Your task to perform on an android device: Open the phone app and click the voicemail tab. Image 0: 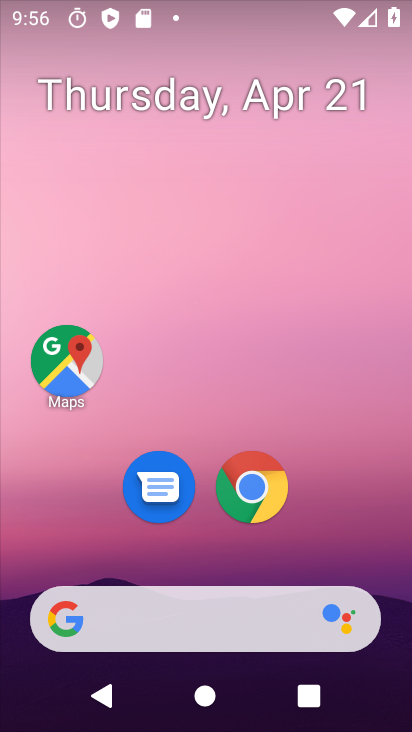
Step 0: drag from (386, 573) to (344, 191)
Your task to perform on an android device: Open the phone app and click the voicemail tab. Image 1: 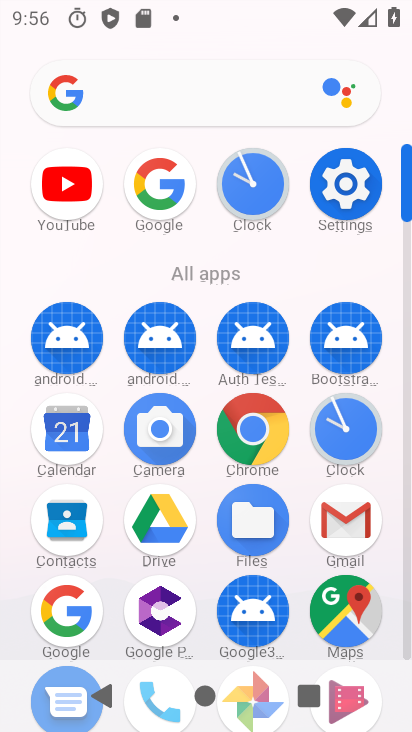
Step 1: drag from (399, 126) to (397, 51)
Your task to perform on an android device: Open the phone app and click the voicemail tab. Image 2: 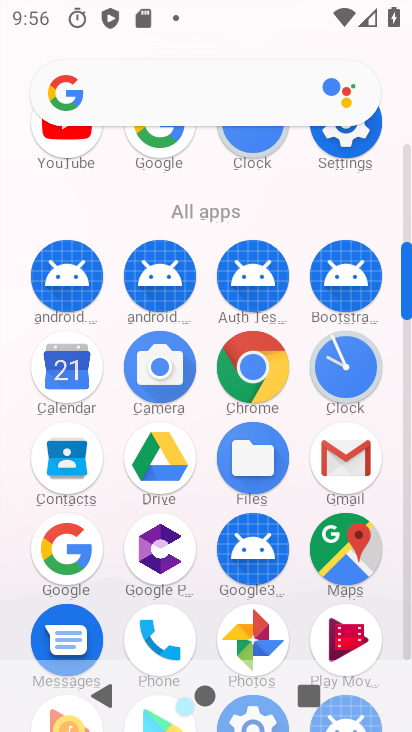
Step 2: click (175, 622)
Your task to perform on an android device: Open the phone app and click the voicemail tab. Image 3: 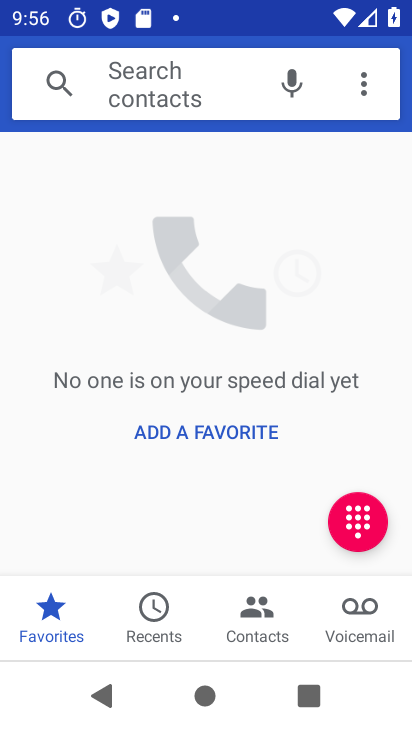
Step 3: click (345, 615)
Your task to perform on an android device: Open the phone app and click the voicemail tab. Image 4: 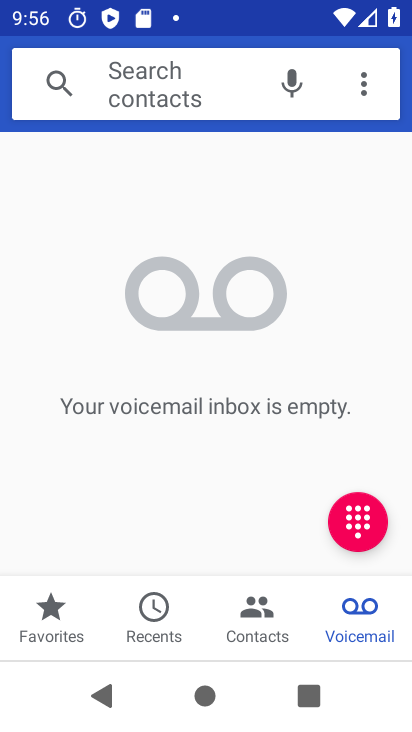
Step 4: task complete